Your task to perform on an android device: Open battery settings Image 0: 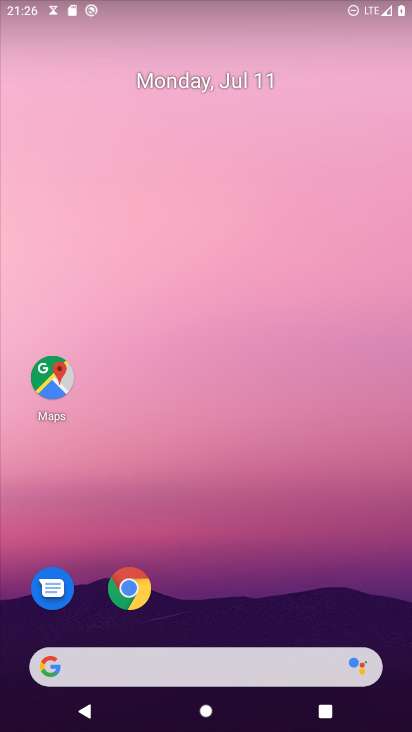
Step 0: press home button
Your task to perform on an android device: Open battery settings Image 1: 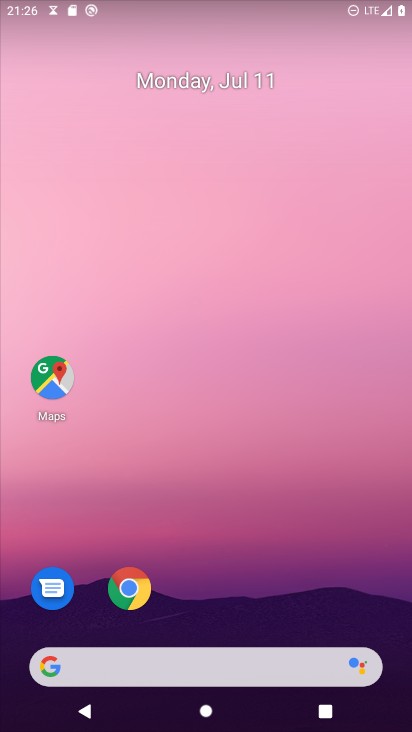
Step 1: drag from (217, 585) to (404, 193)
Your task to perform on an android device: Open battery settings Image 2: 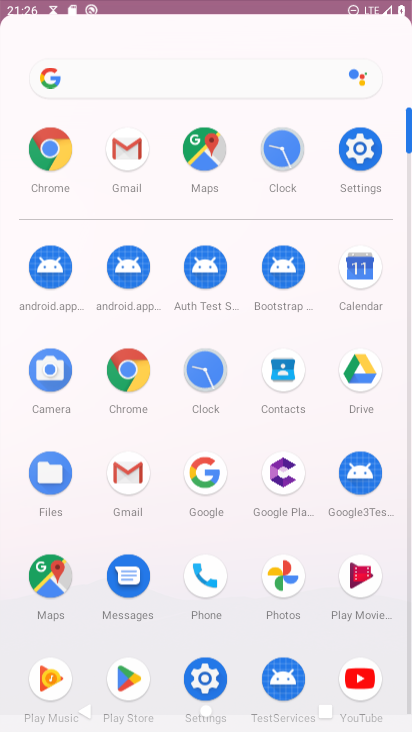
Step 2: click (347, 160)
Your task to perform on an android device: Open battery settings Image 3: 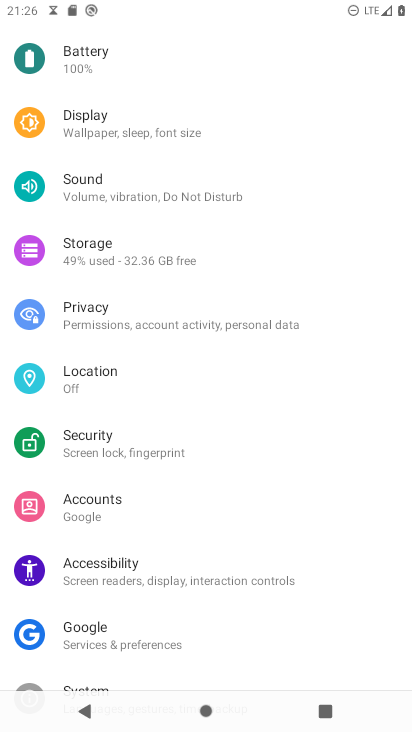
Step 3: click (79, 53)
Your task to perform on an android device: Open battery settings Image 4: 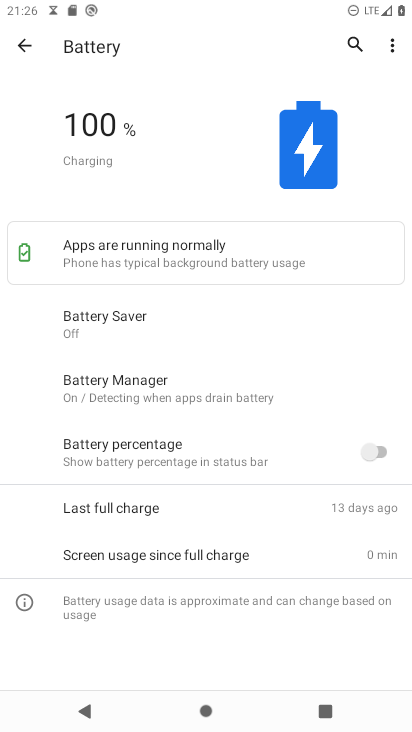
Step 4: task complete